Your task to perform on an android device: open app "DuckDuckGo Privacy Browser" Image 0: 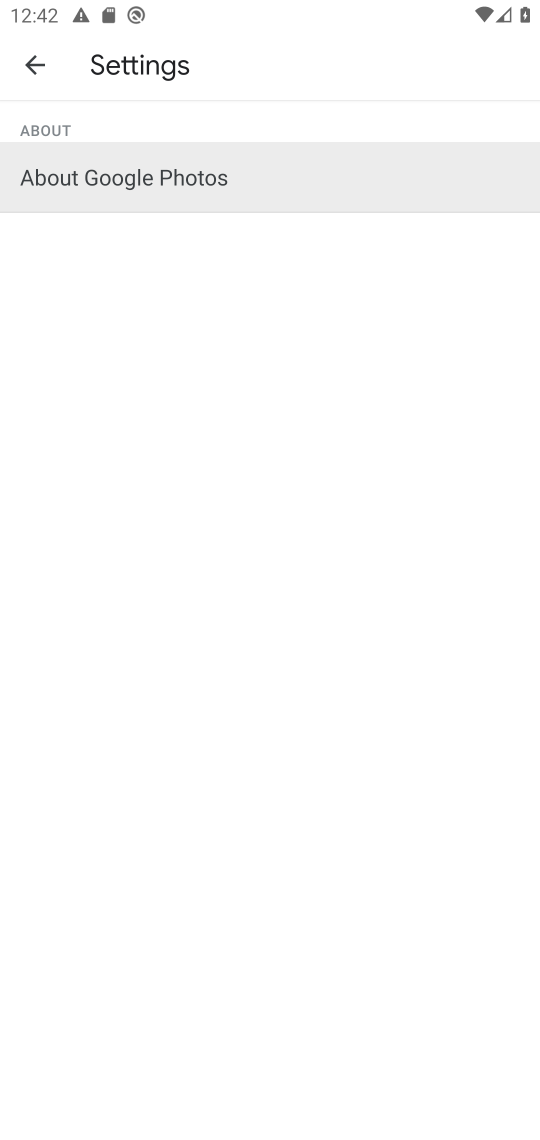
Step 0: press home button
Your task to perform on an android device: open app "DuckDuckGo Privacy Browser" Image 1: 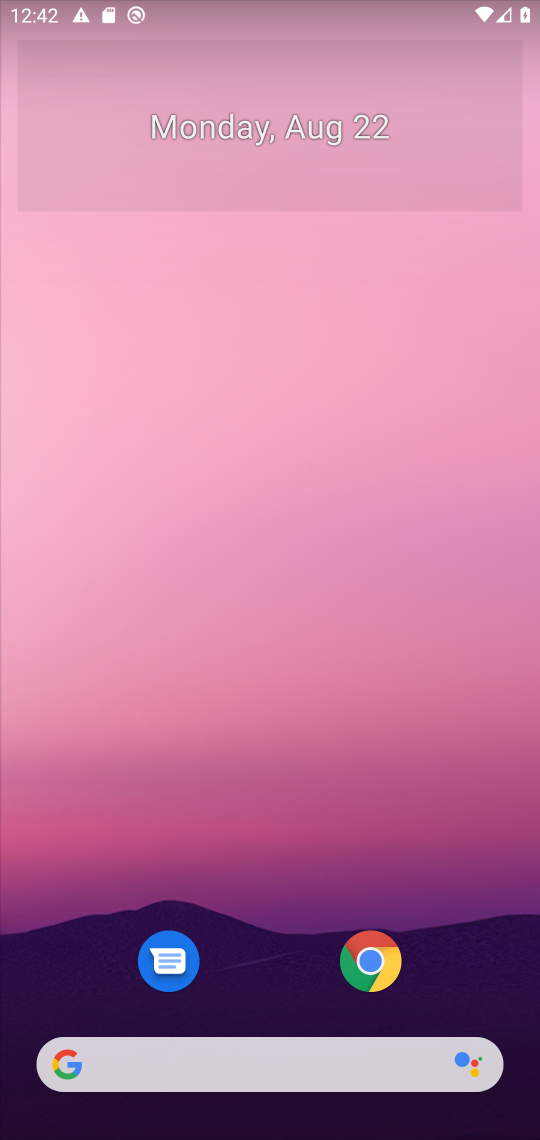
Step 1: drag from (457, 882) to (459, 88)
Your task to perform on an android device: open app "DuckDuckGo Privacy Browser" Image 2: 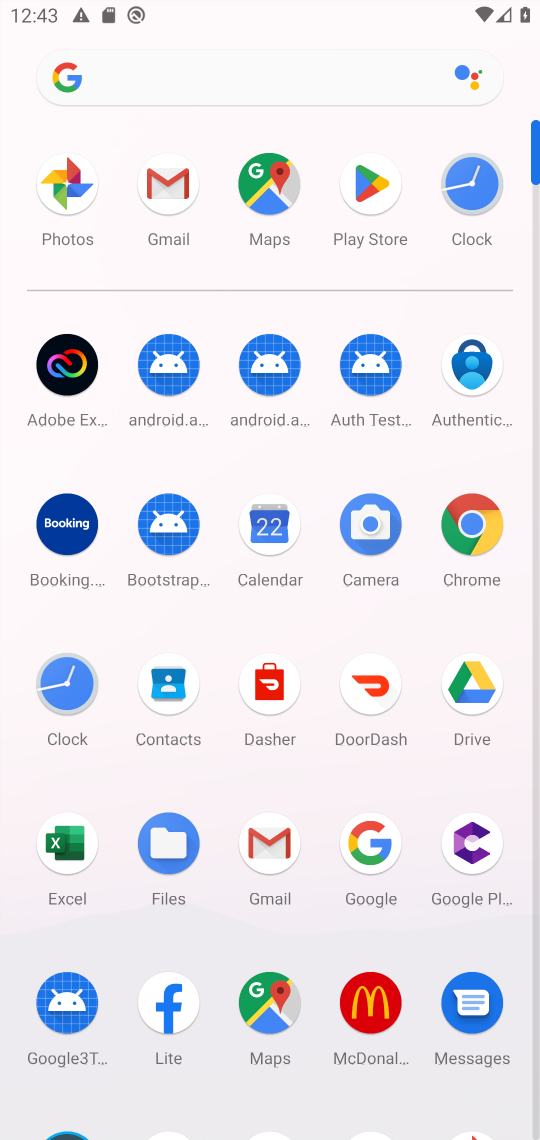
Step 2: click (372, 193)
Your task to perform on an android device: open app "DuckDuckGo Privacy Browser" Image 3: 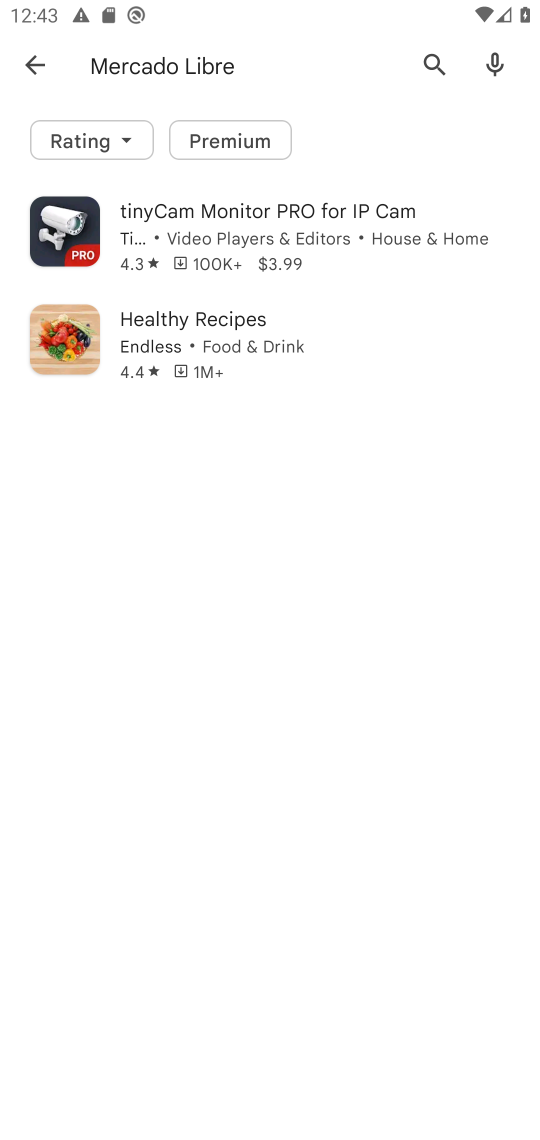
Step 3: press back button
Your task to perform on an android device: open app "DuckDuckGo Privacy Browser" Image 4: 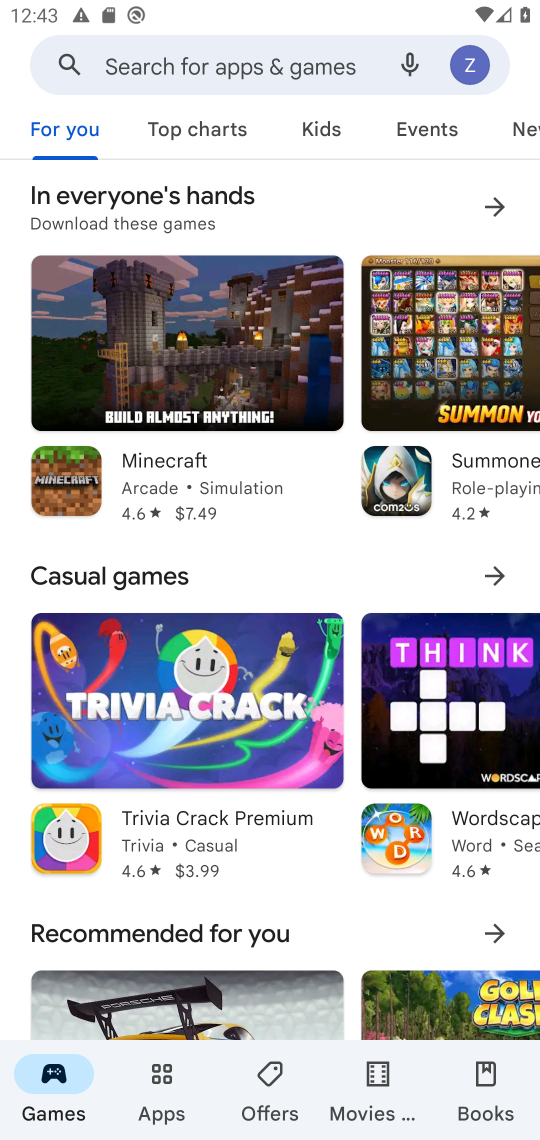
Step 4: click (302, 63)
Your task to perform on an android device: open app "DuckDuckGo Privacy Browser" Image 5: 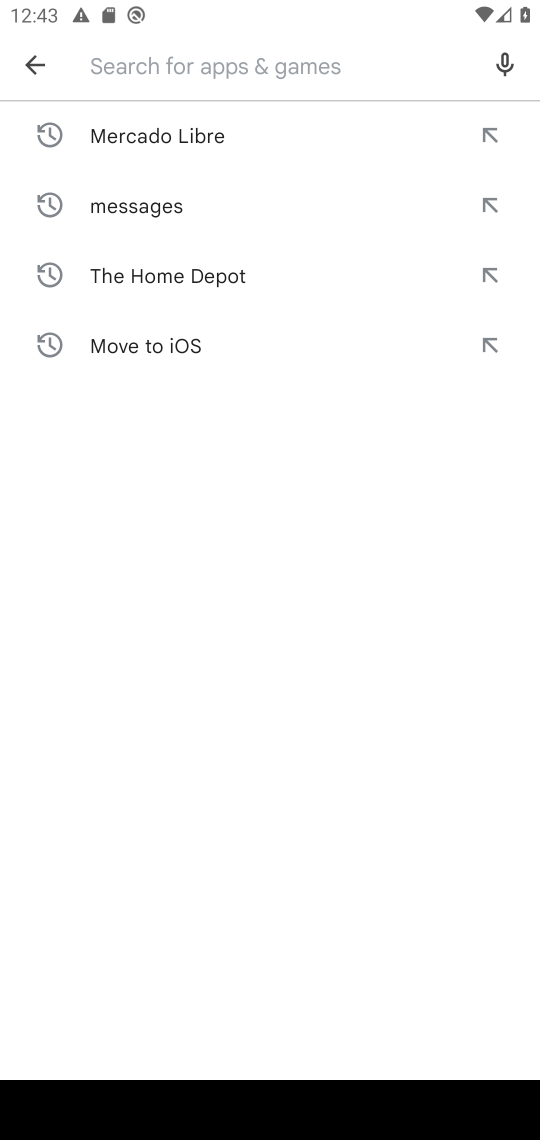
Step 5: type "DuckDuckGo Privacy Browser"
Your task to perform on an android device: open app "DuckDuckGo Privacy Browser" Image 6: 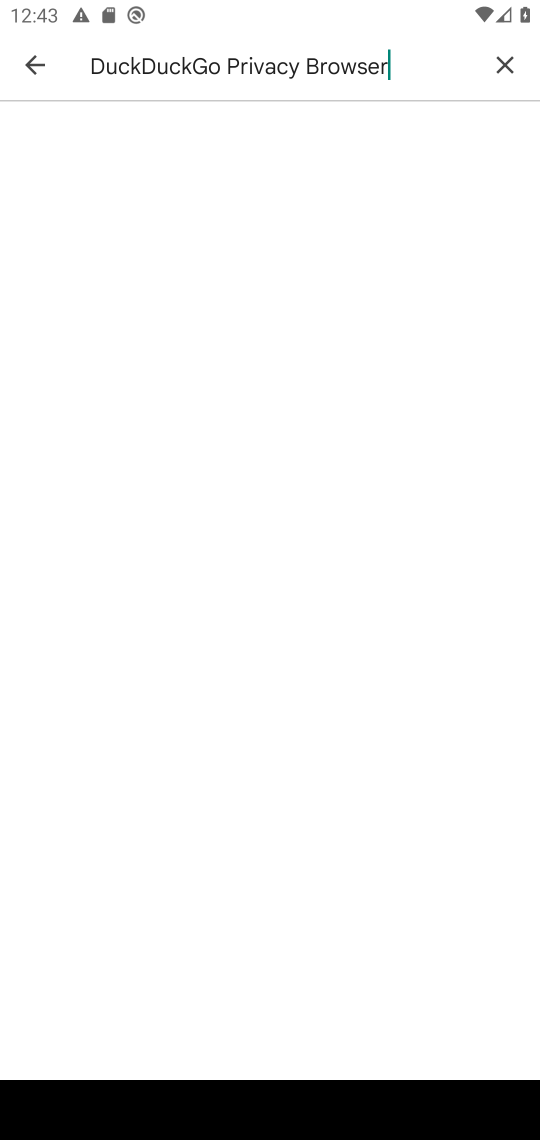
Step 6: task complete